Your task to perform on an android device: Search for Italian restaurants on Maps Image 0: 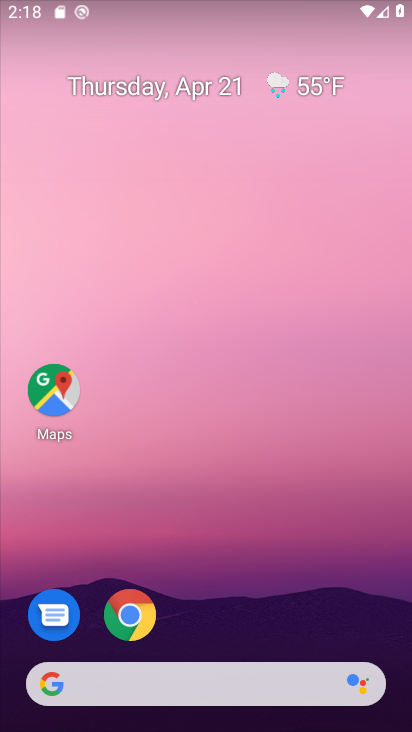
Step 0: click (32, 365)
Your task to perform on an android device: Search for Italian restaurants on Maps Image 1: 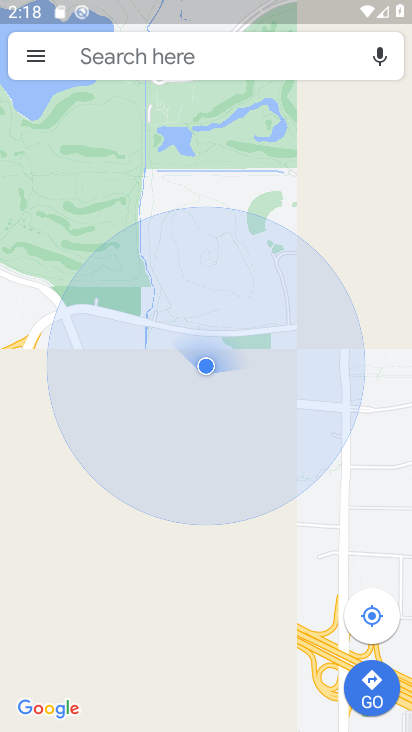
Step 1: click (192, 58)
Your task to perform on an android device: Search for Italian restaurants on Maps Image 2: 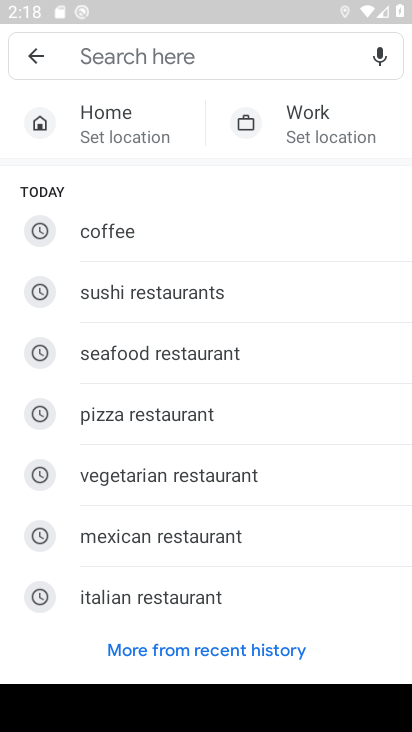
Step 2: click (108, 587)
Your task to perform on an android device: Search for Italian restaurants on Maps Image 3: 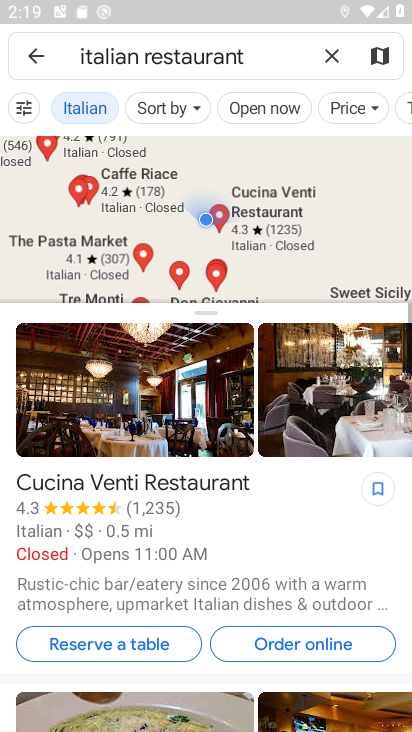
Step 3: task complete